Your task to perform on an android device: change notification settings in the gmail app Image 0: 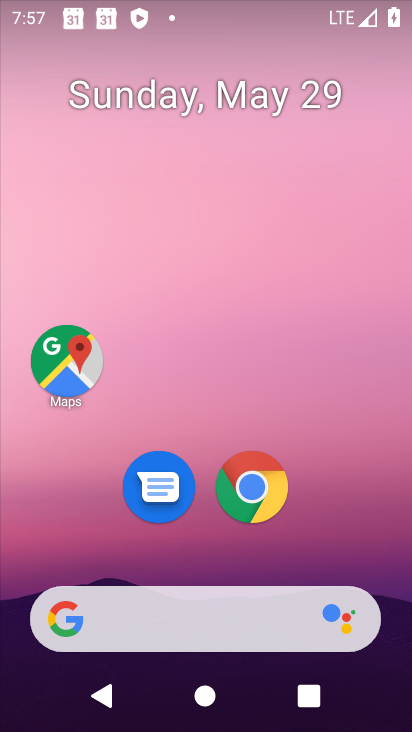
Step 0: drag from (338, 655) to (389, 8)
Your task to perform on an android device: change notification settings in the gmail app Image 1: 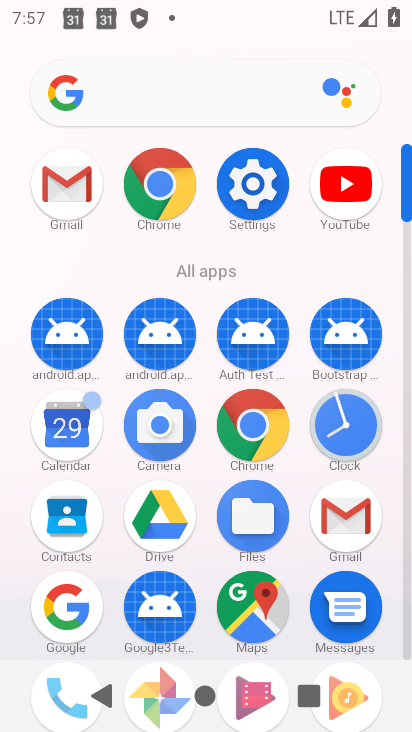
Step 1: click (359, 553)
Your task to perform on an android device: change notification settings in the gmail app Image 2: 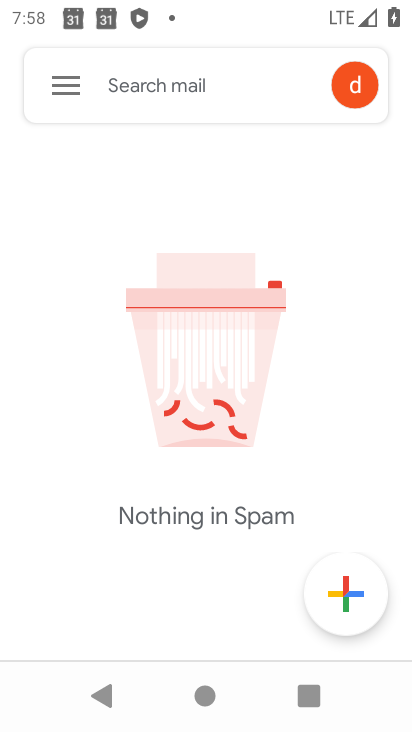
Step 2: click (59, 93)
Your task to perform on an android device: change notification settings in the gmail app Image 3: 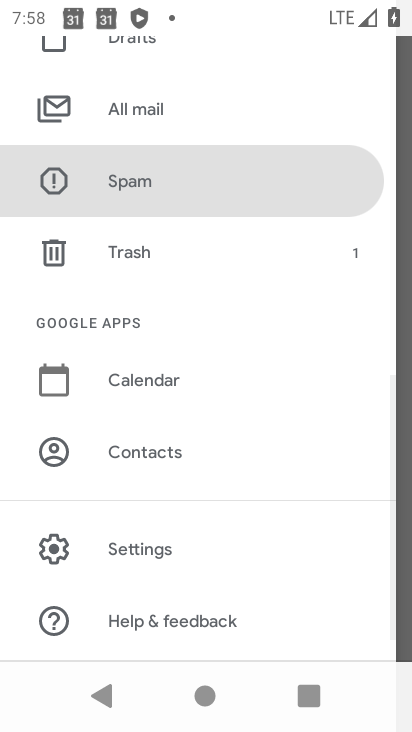
Step 3: click (105, 552)
Your task to perform on an android device: change notification settings in the gmail app Image 4: 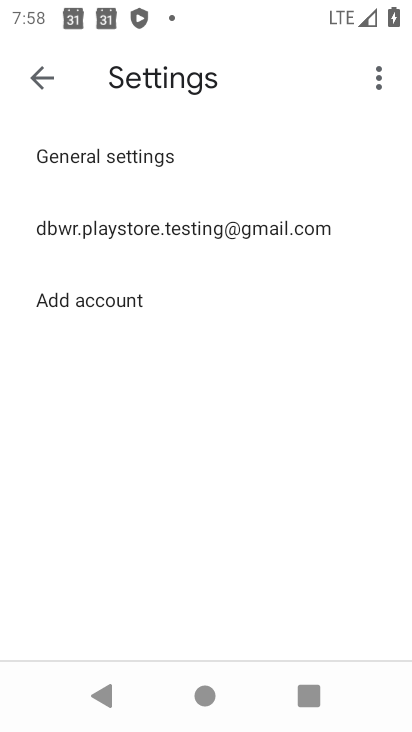
Step 4: click (151, 146)
Your task to perform on an android device: change notification settings in the gmail app Image 5: 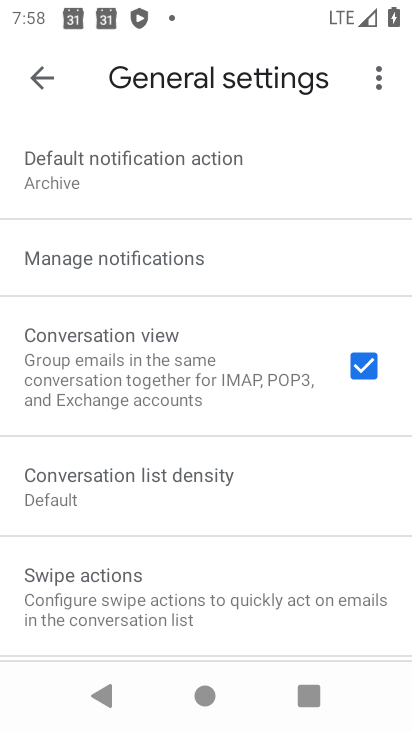
Step 5: click (117, 247)
Your task to perform on an android device: change notification settings in the gmail app Image 6: 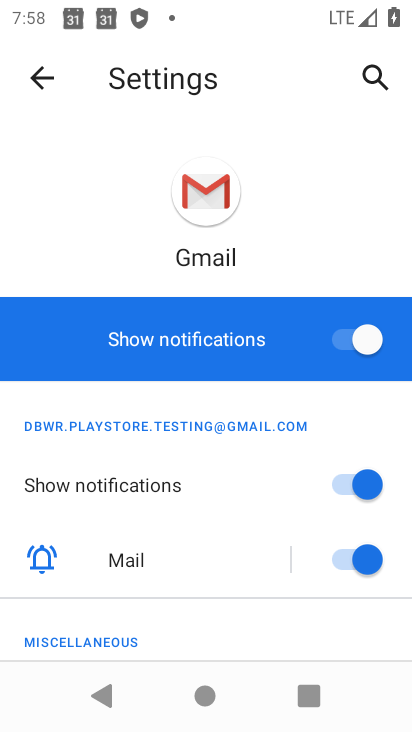
Step 6: click (328, 349)
Your task to perform on an android device: change notification settings in the gmail app Image 7: 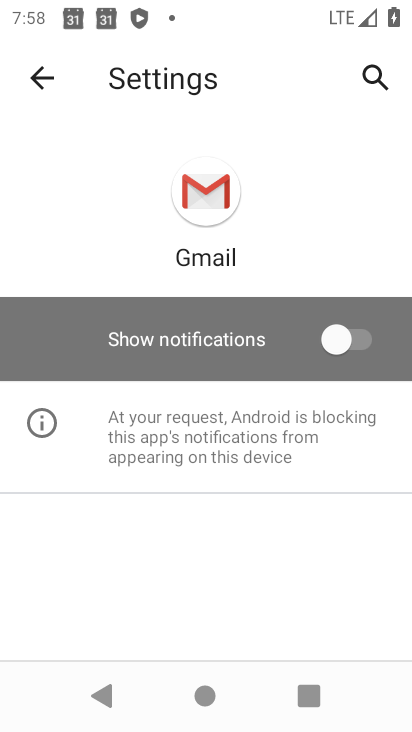
Step 7: task complete